Your task to perform on an android device: Search for sushi restaurants on Maps Image 0: 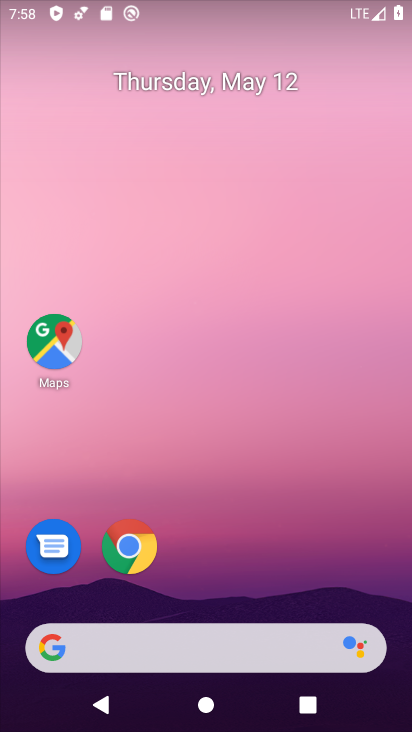
Step 0: click (60, 323)
Your task to perform on an android device: Search for sushi restaurants on Maps Image 1: 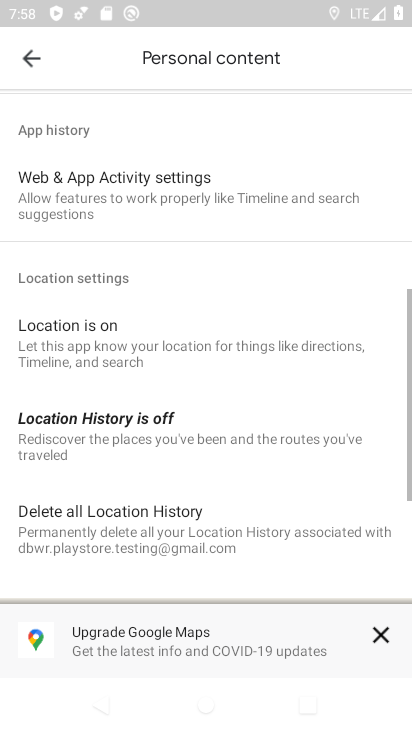
Step 1: click (17, 67)
Your task to perform on an android device: Search for sushi restaurants on Maps Image 2: 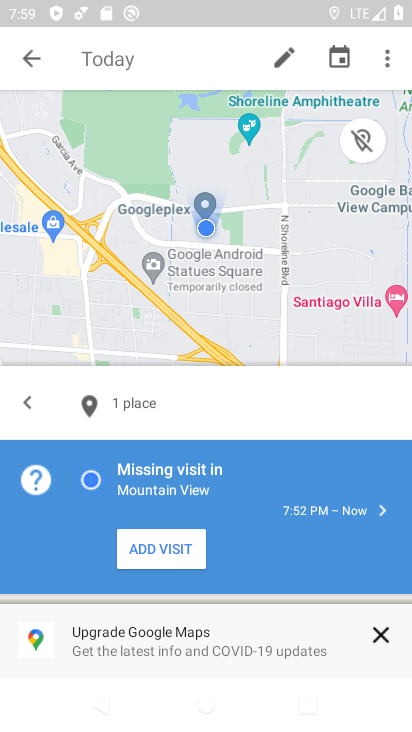
Step 2: task complete